Your task to perform on an android device: turn off translation in the chrome app Image 0: 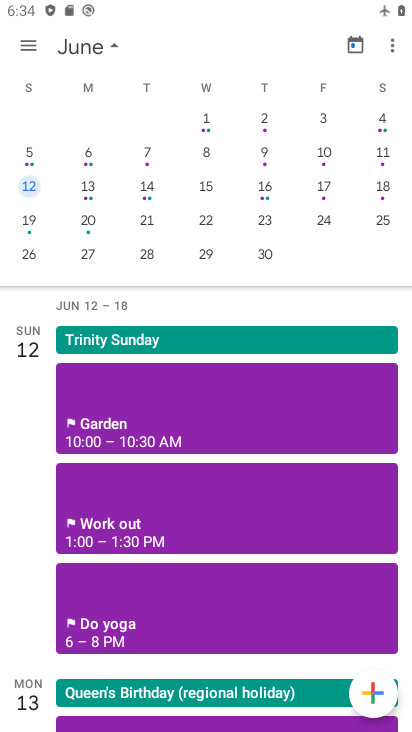
Step 0: press home button
Your task to perform on an android device: turn off translation in the chrome app Image 1: 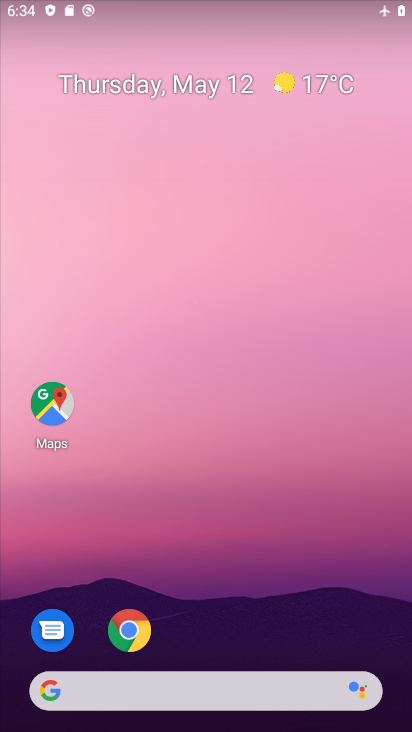
Step 1: click (134, 619)
Your task to perform on an android device: turn off translation in the chrome app Image 2: 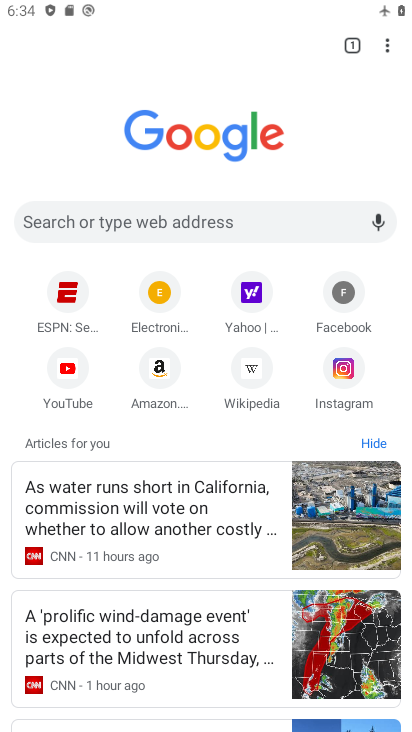
Step 2: click (387, 40)
Your task to perform on an android device: turn off translation in the chrome app Image 3: 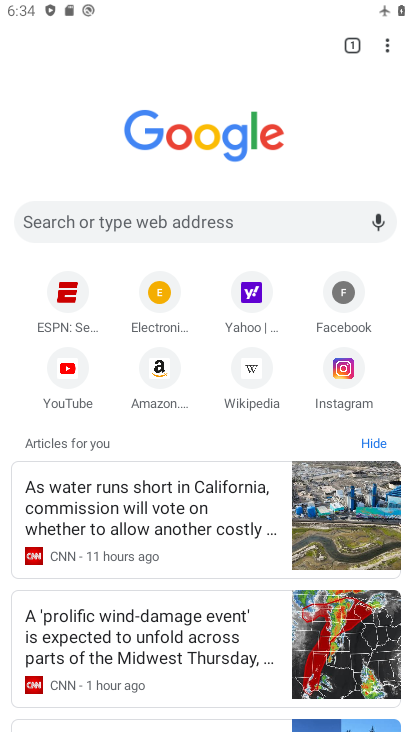
Step 3: click (387, 40)
Your task to perform on an android device: turn off translation in the chrome app Image 4: 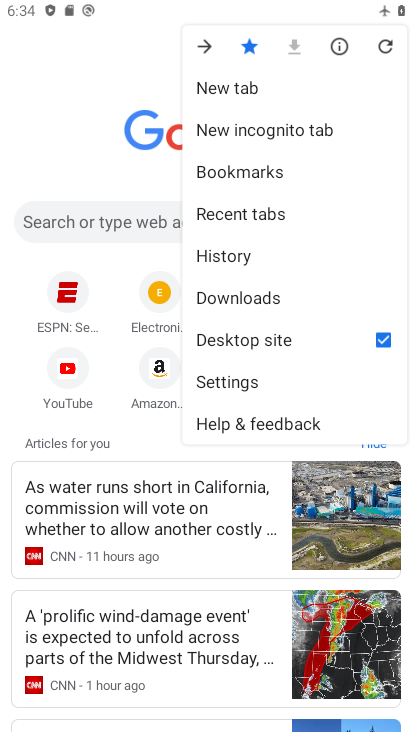
Step 4: click (238, 384)
Your task to perform on an android device: turn off translation in the chrome app Image 5: 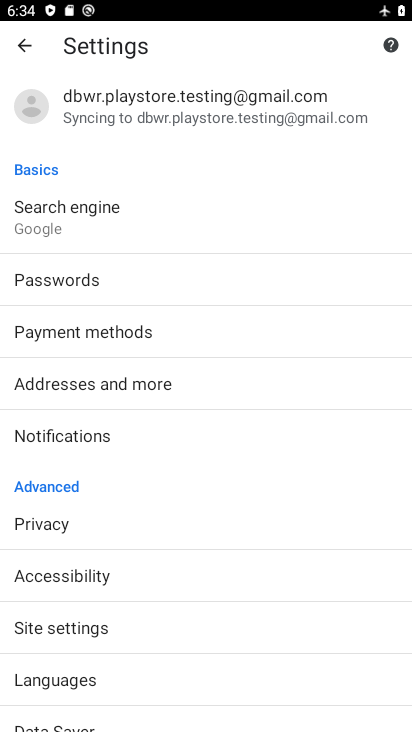
Step 5: click (69, 669)
Your task to perform on an android device: turn off translation in the chrome app Image 6: 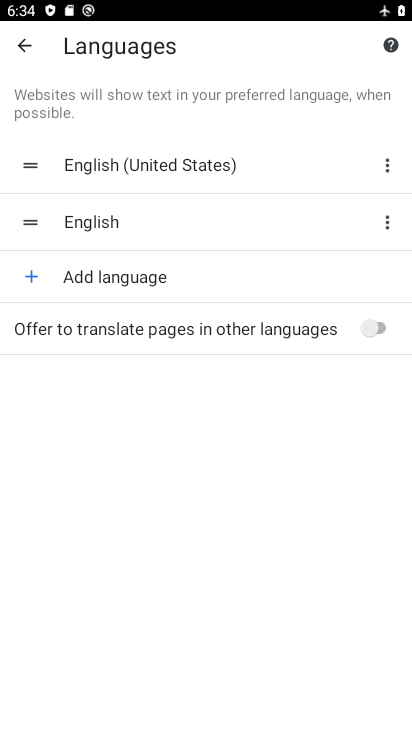
Step 6: task complete